Your task to perform on an android device: change keyboard looks Image 0: 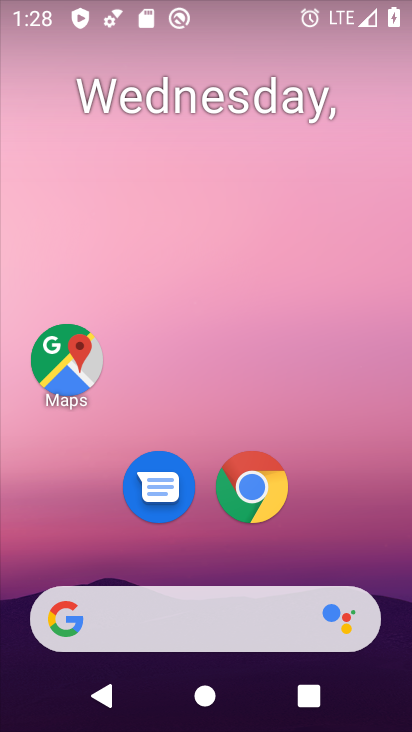
Step 0: drag from (322, 550) to (328, 43)
Your task to perform on an android device: change keyboard looks Image 1: 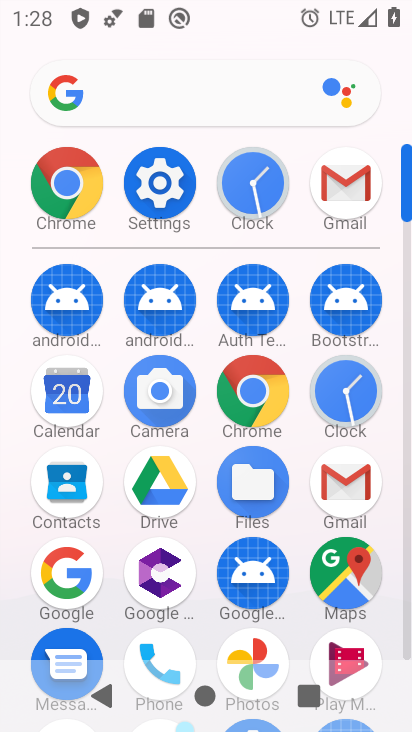
Step 1: click (156, 196)
Your task to perform on an android device: change keyboard looks Image 2: 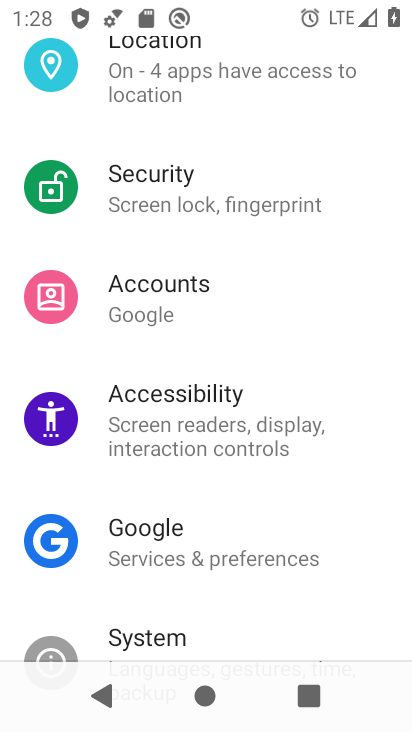
Step 2: click (178, 634)
Your task to perform on an android device: change keyboard looks Image 3: 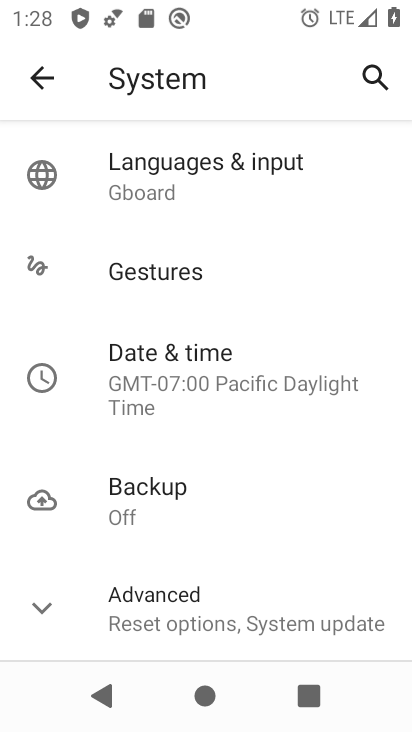
Step 3: click (204, 188)
Your task to perform on an android device: change keyboard looks Image 4: 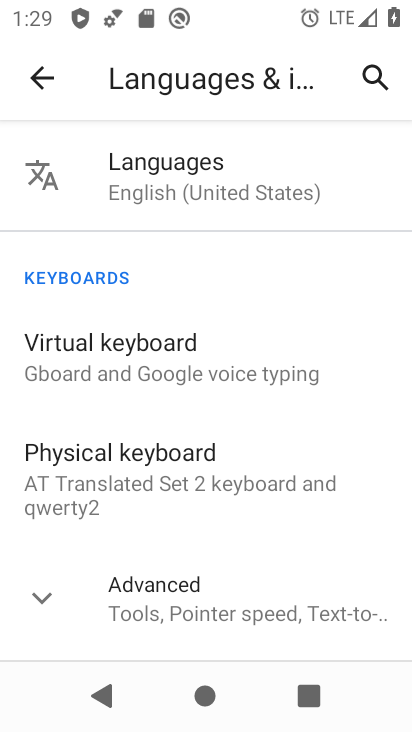
Step 4: click (239, 344)
Your task to perform on an android device: change keyboard looks Image 5: 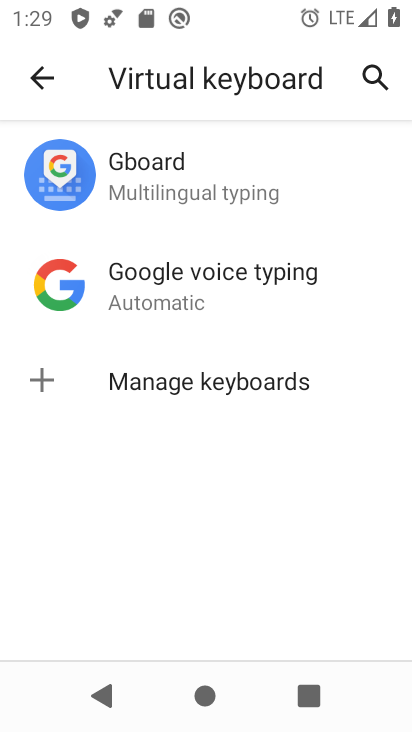
Step 5: click (238, 191)
Your task to perform on an android device: change keyboard looks Image 6: 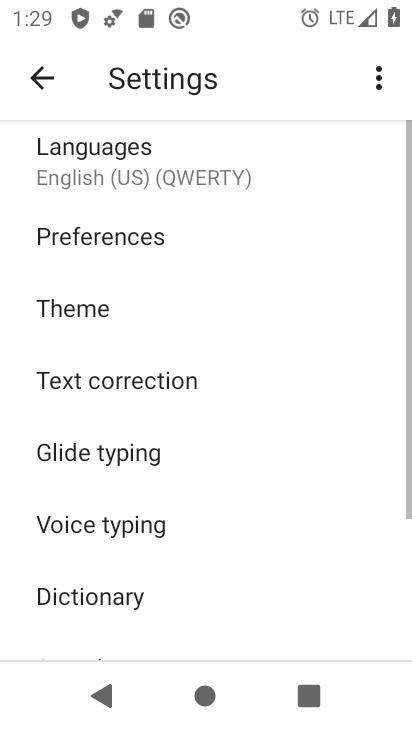
Step 6: click (139, 297)
Your task to perform on an android device: change keyboard looks Image 7: 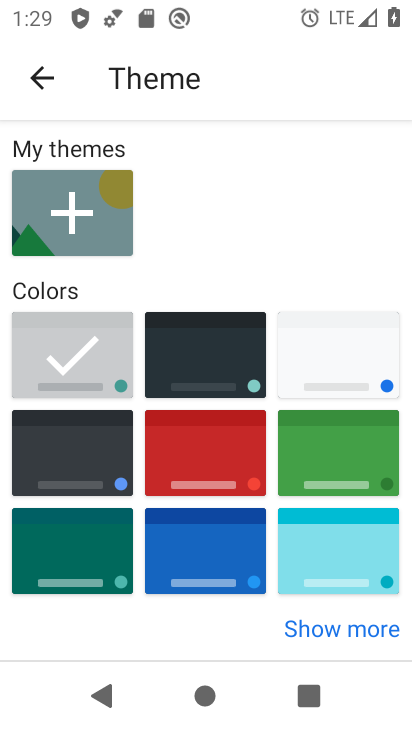
Step 7: click (338, 334)
Your task to perform on an android device: change keyboard looks Image 8: 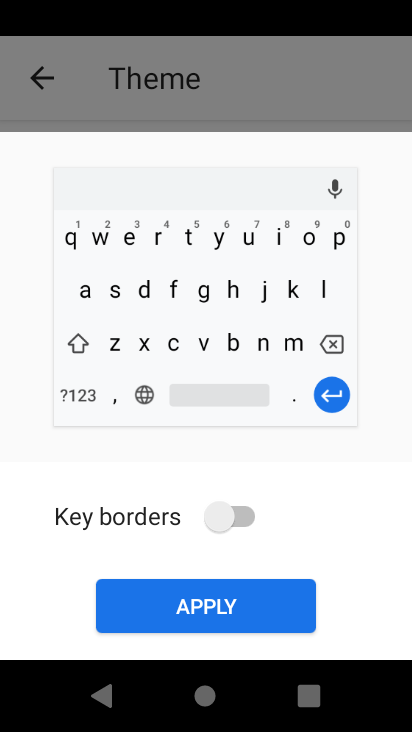
Step 8: click (226, 602)
Your task to perform on an android device: change keyboard looks Image 9: 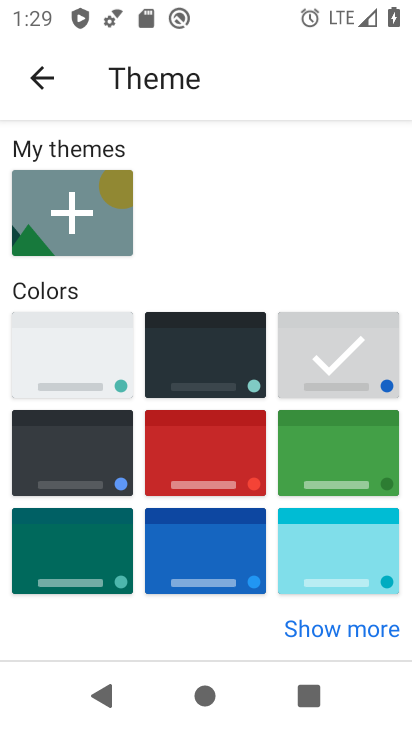
Step 9: task complete